Your task to perform on an android device: What's on my calendar tomorrow? Image 0: 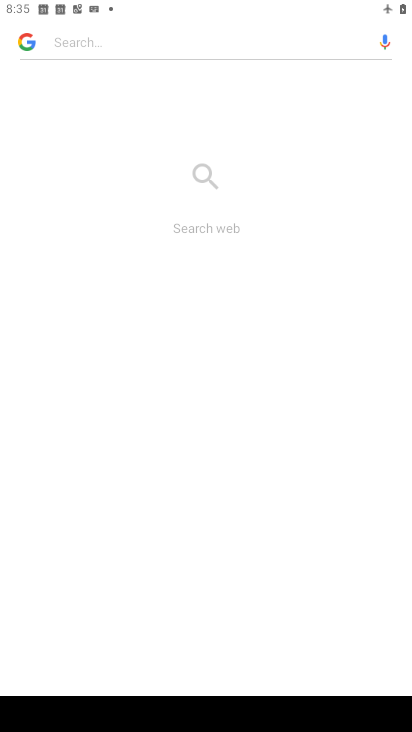
Step 0: press back button
Your task to perform on an android device: What's on my calendar tomorrow? Image 1: 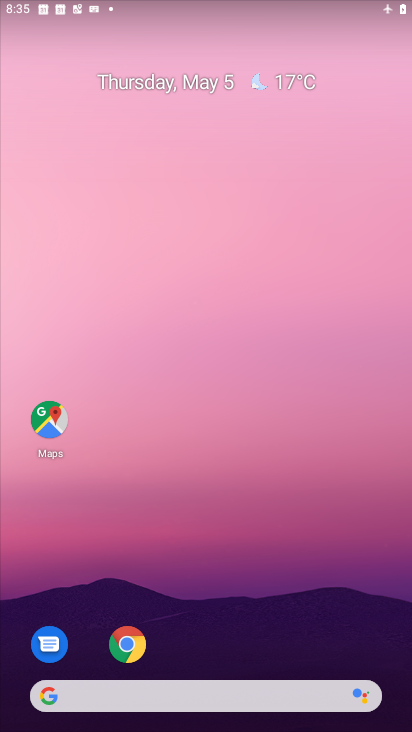
Step 1: drag from (202, 631) to (202, 183)
Your task to perform on an android device: What's on my calendar tomorrow? Image 2: 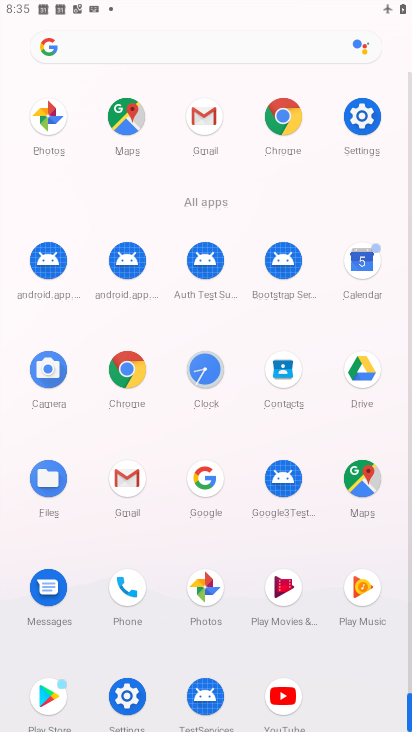
Step 2: click (366, 267)
Your task to perform on an android device: What's on my calendar tomorrow? Image 3: 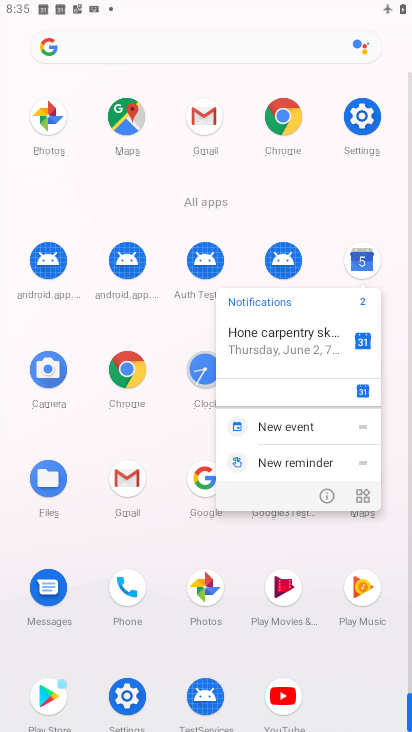
Step 3: click (319, 495)
Your task to perform on an android device: What's on my calendar tomorrow? Image 4: 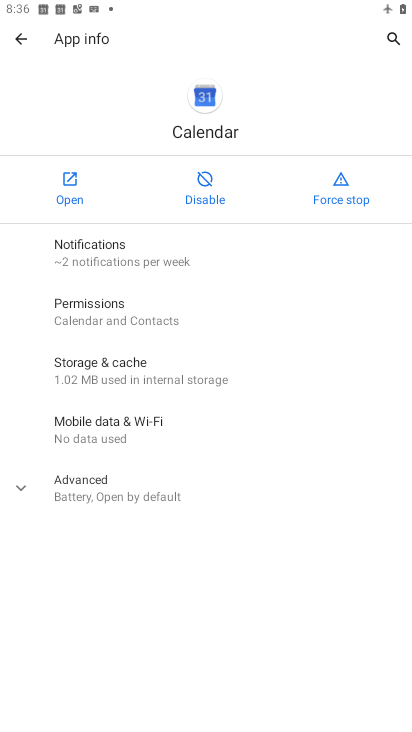
Step 4: click (68, 197)
Your task to perform on an android device: What's on my calendar tomorrow? Image 5: 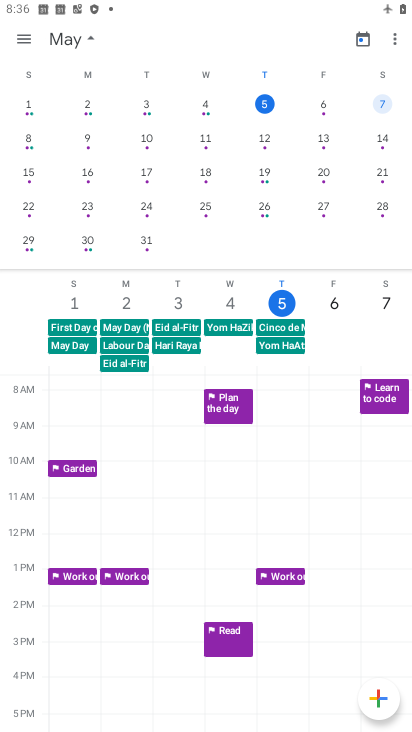
Step 5: click (317, 100)
Your task to perform on an android device: What's on my calendar tomorrow? Image 6: 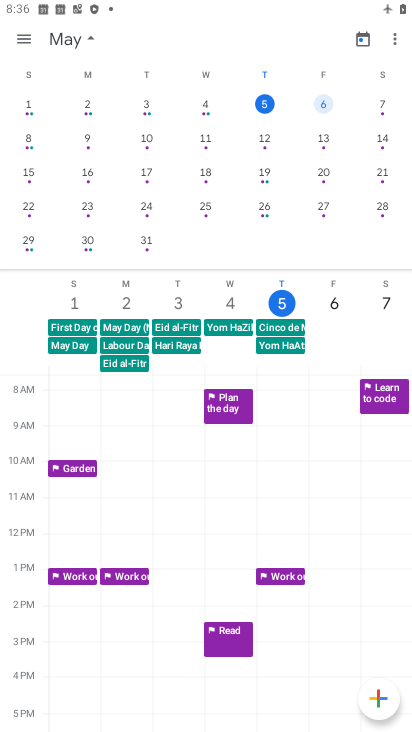
Step 6: click (317, 104)
Your task to perform on an android device: What's on my calendar tomorrow? Image 7: 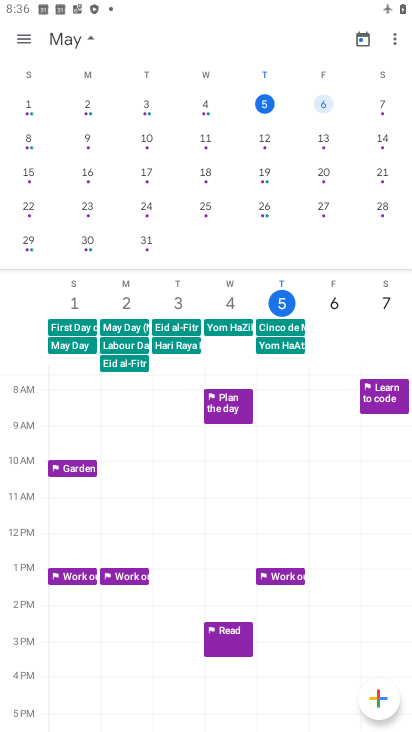
Step 7: click (317, 104)
Your task to perform on an android device: What's on my calendar tomorrow? Image 8: 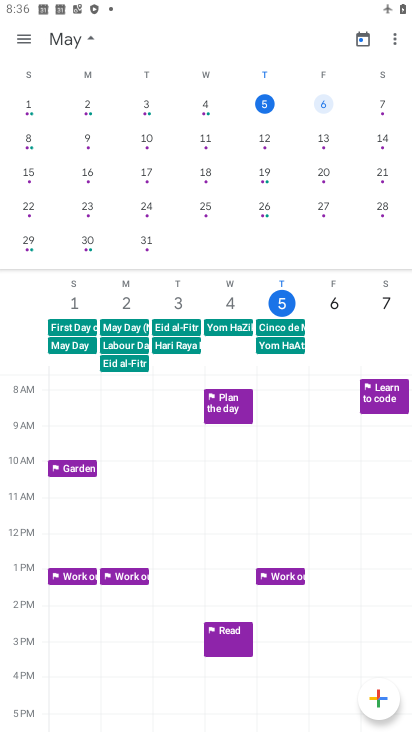
Step 8: click (333, 296)
Your task to perform on an android device: What's on my calendar tomorrow? Image 9: 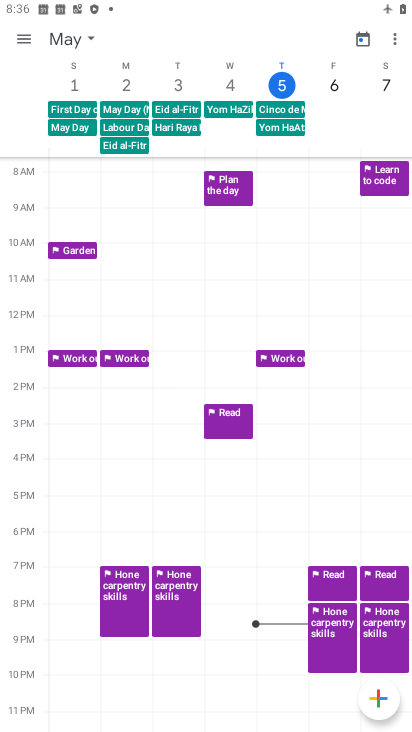
Step 9: click (325, 82)
Your task to perform on an android device: What's on my calendar tomorrow? Image 10: 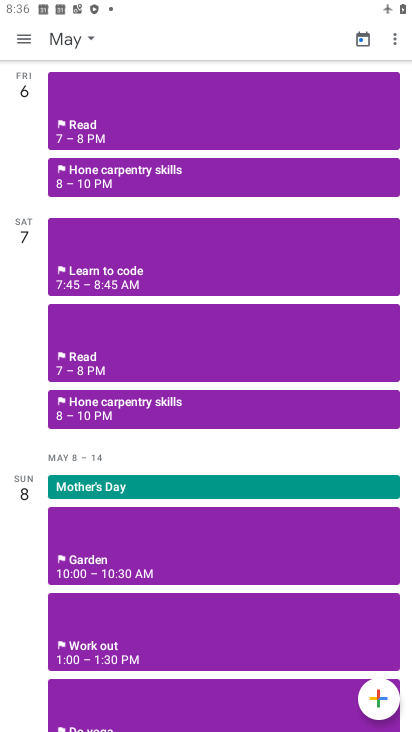
Step 10: task complete